Your task to perform on an android device: turn off improve location accuracy Image 0: 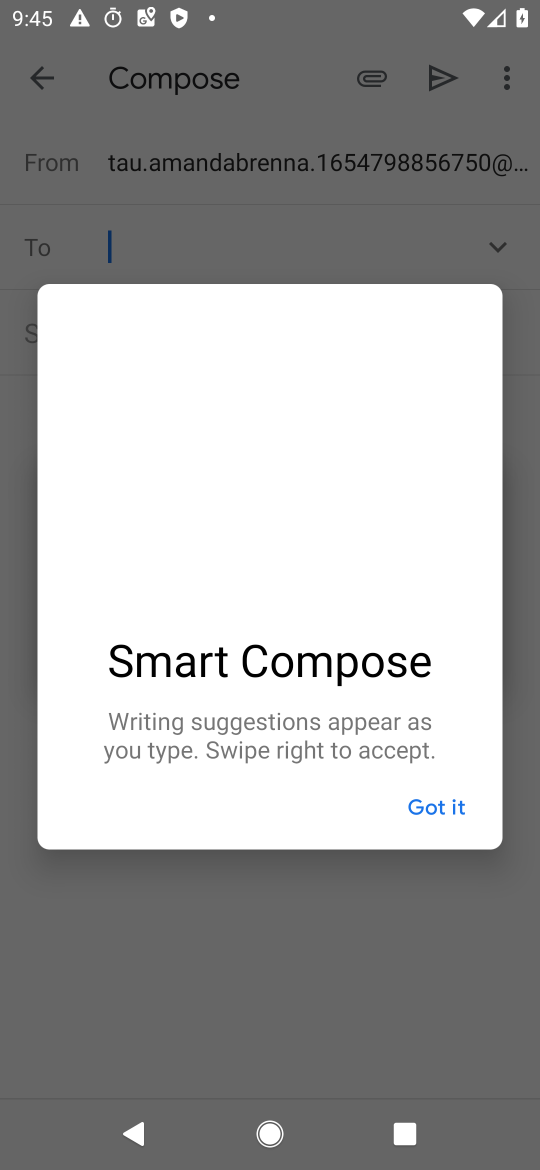
Step 0: press home button
Your task to perform on an android device: turn off improve location accuracy Image 1: 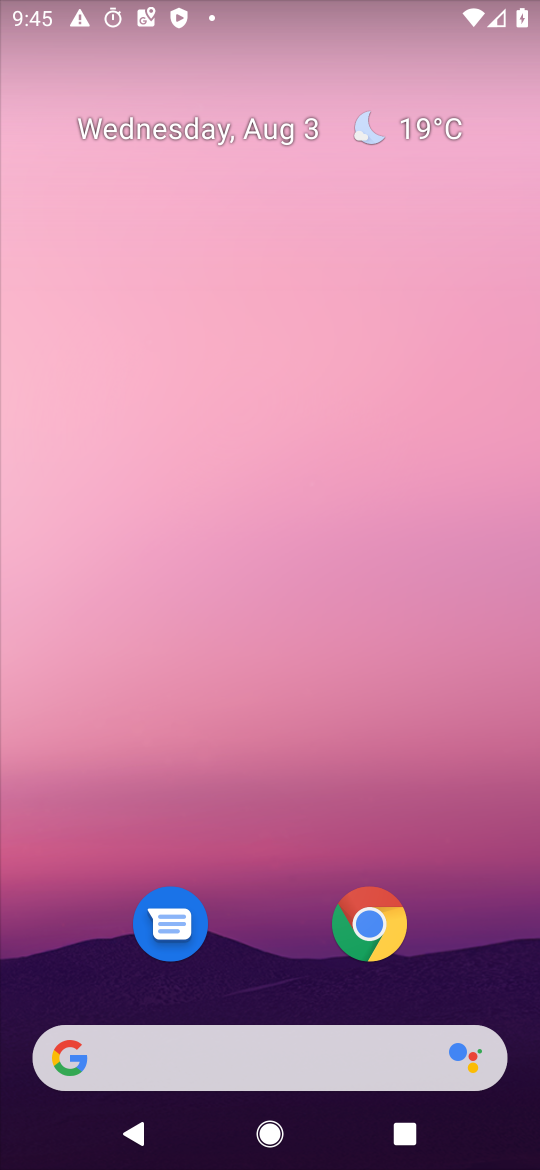
Step 1: drag from (276, 963) to (368, 60)
Your task to perform on an android device: turn off improve location accuracy Image 2: 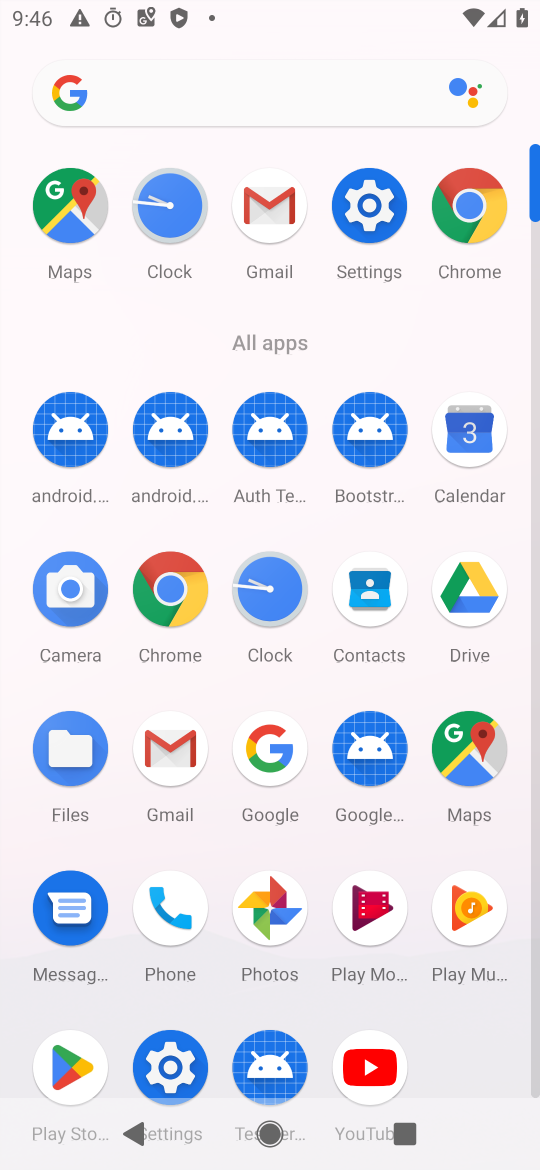
Step 2: click (170, 1049)
Your task to perform on an android device: turn off improve location accuracy Image 3: 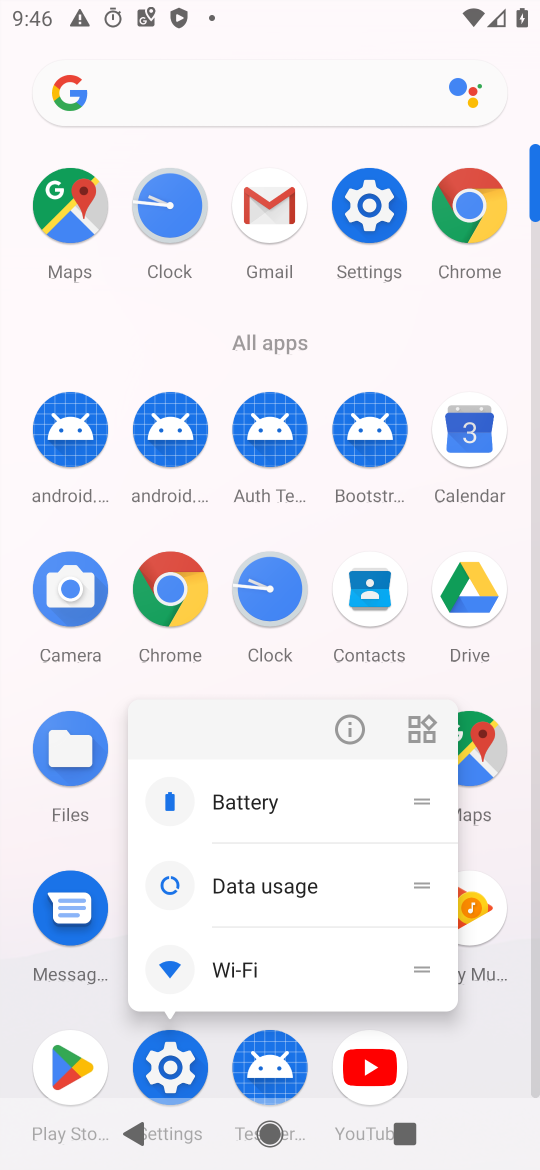
Step 3: click (165, 1054)
Your task to perform on an android device: turn off improve location accuracy Image 4: 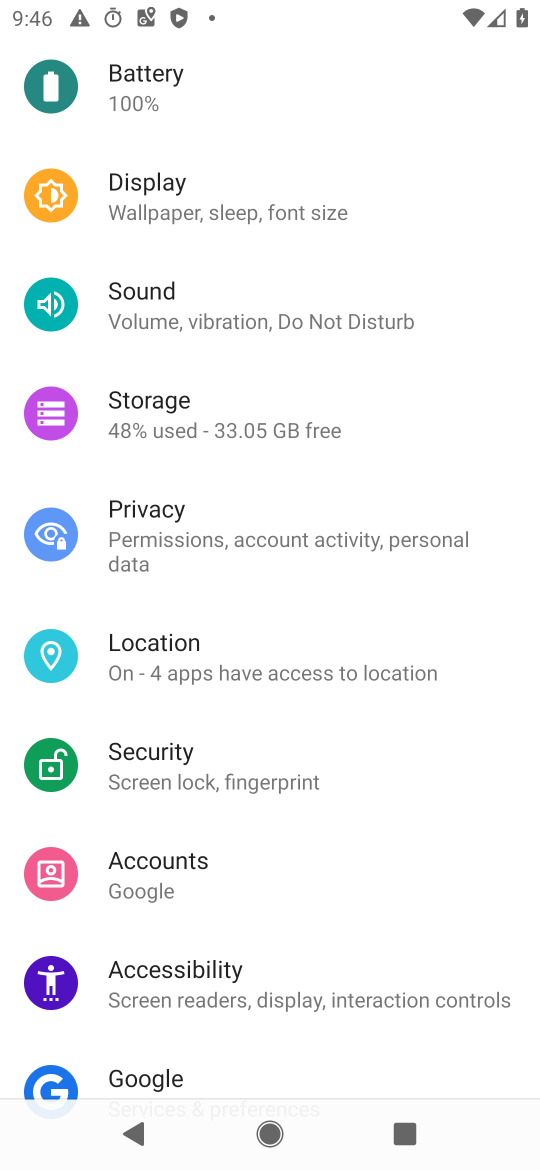
Step 4: click (231, 648)
Your task to perform on an android device: turn off improve location accuracy Image 5: 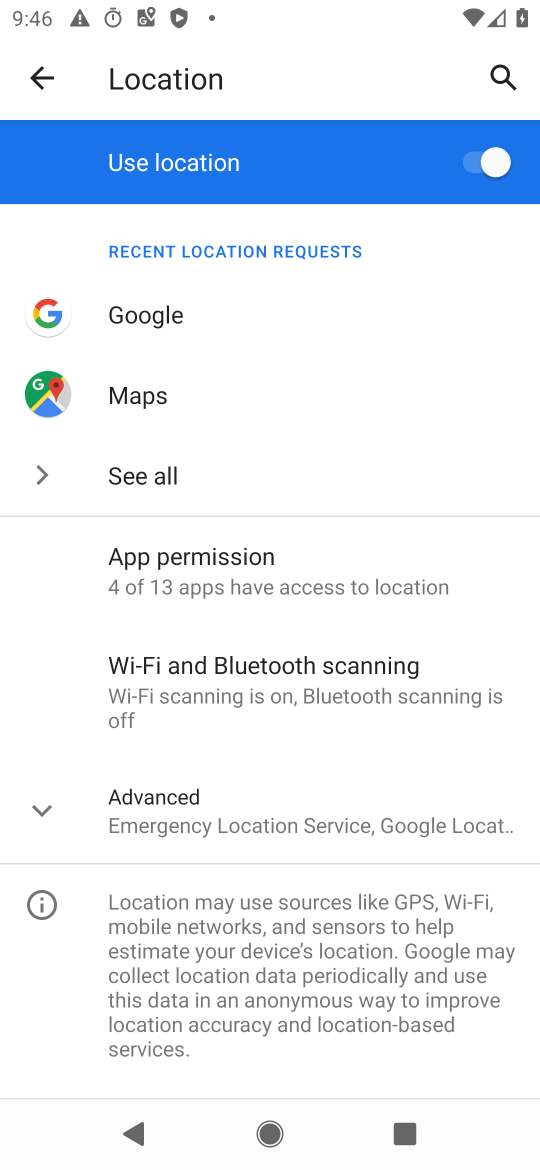
Step 5: click (38, 807)
Your task to perform on an android device: turn off improve location accuracy Image 6: 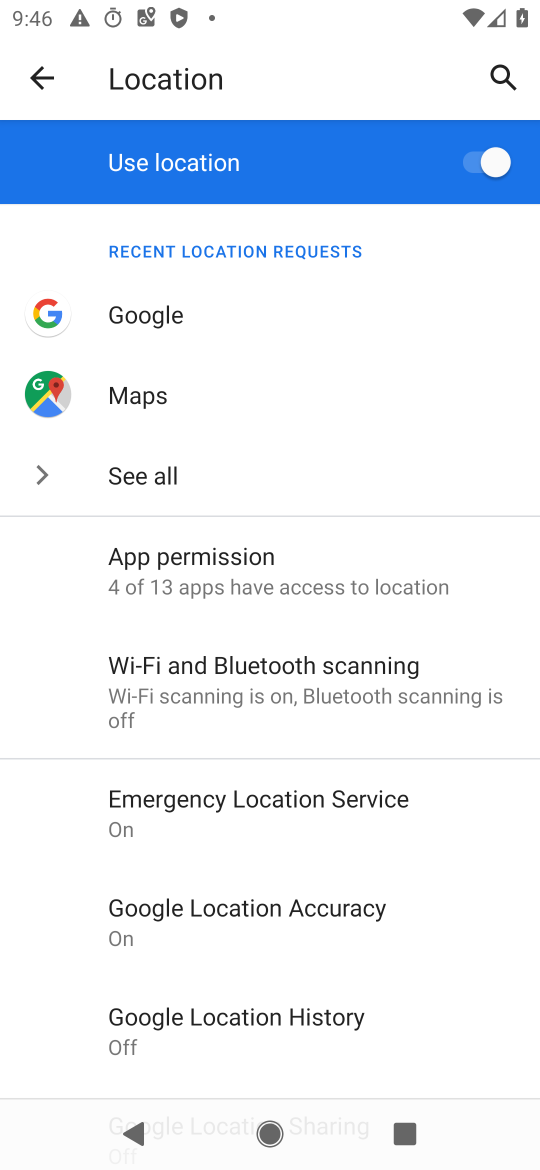
Step 6: click (355, 908)
Your task to perform on an android device: turn off improve location accuracy Image 7: 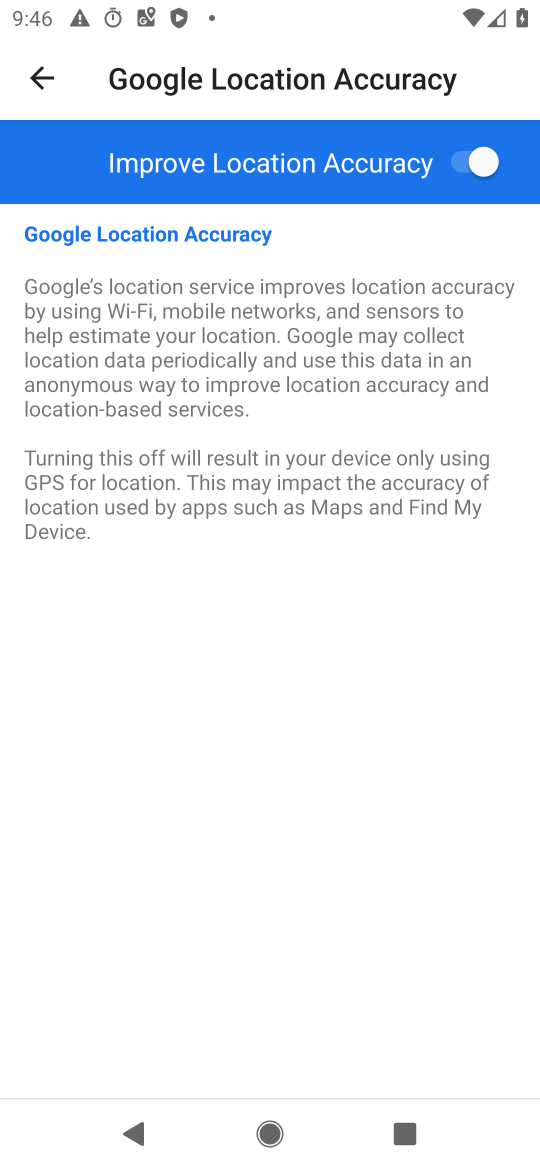
Step 7: click (474, 160)
Your task to perform on an android device: turn off improve location accuracy Image 8: 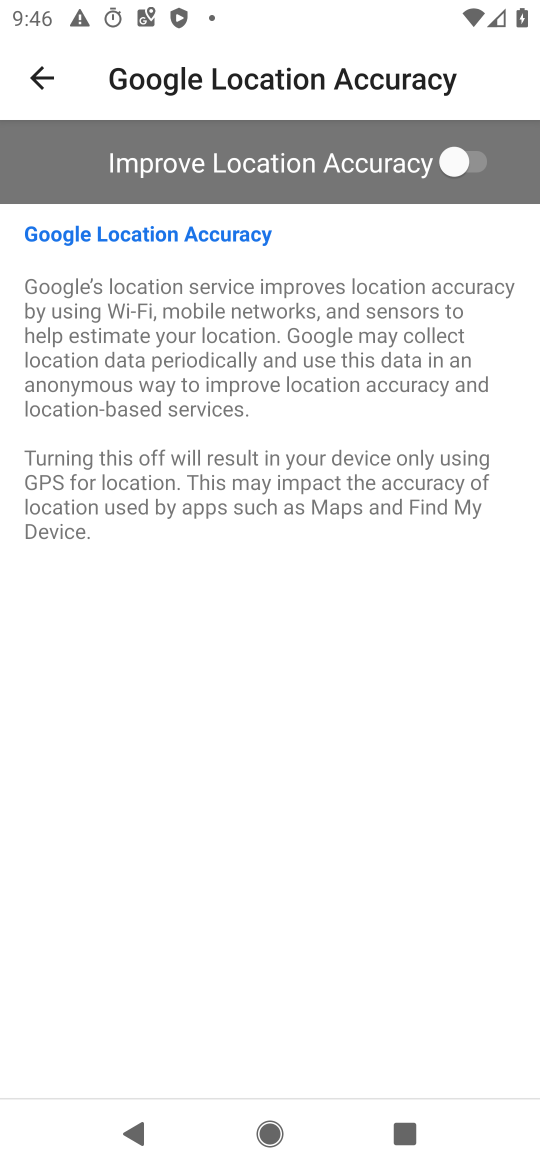
Step 8: task complete